Your task to perform on an android device: Turn off the flashlight Image 0: 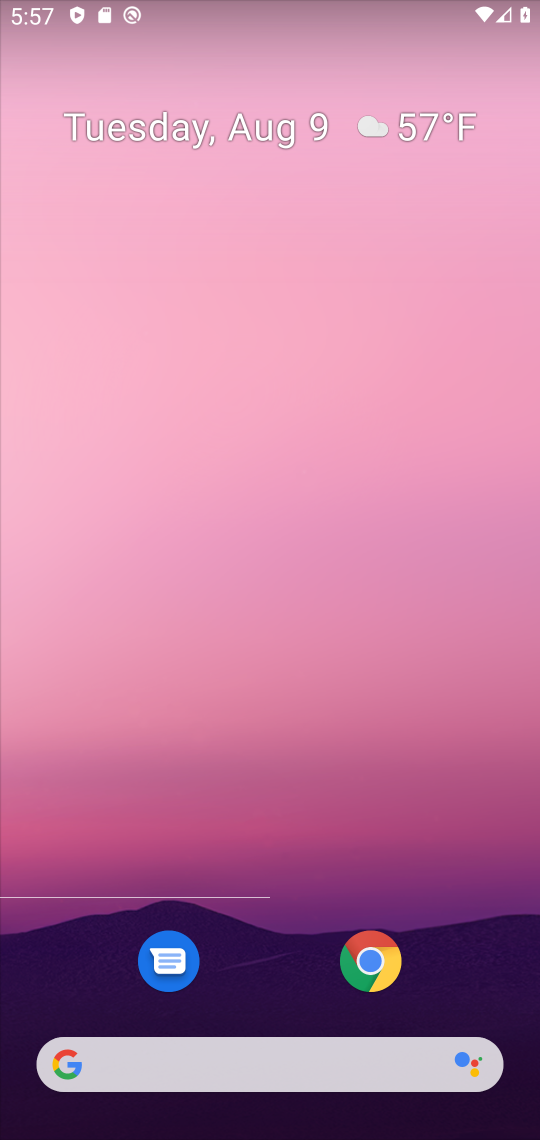
Step 0: press back button
Your task to perform on an android device: Turn off the flashlight Image 1: 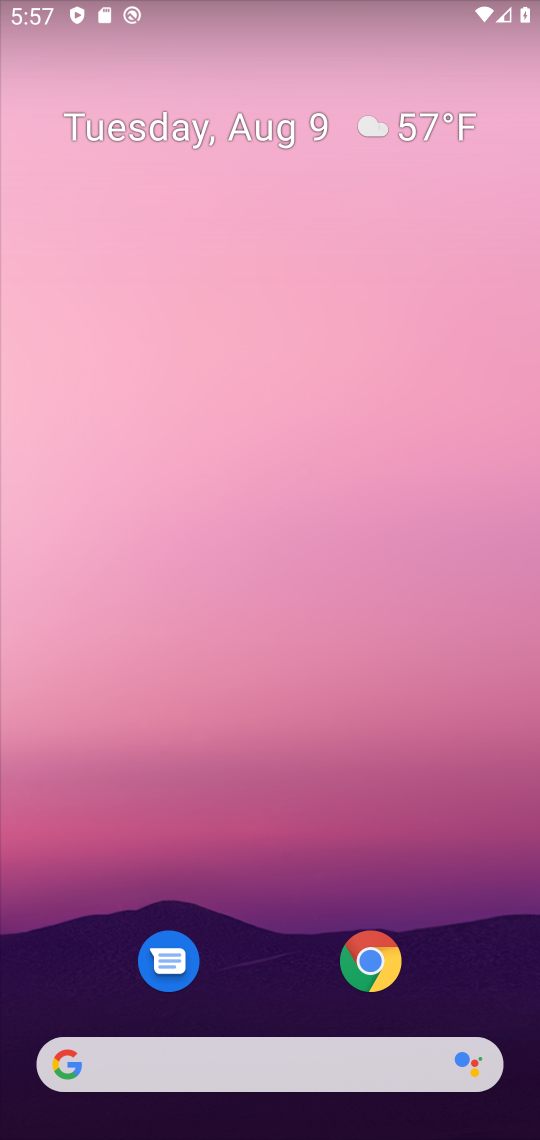
Step 1: task complete